Your task to perform on an android device: Open Maps and search for coffee Image 0: 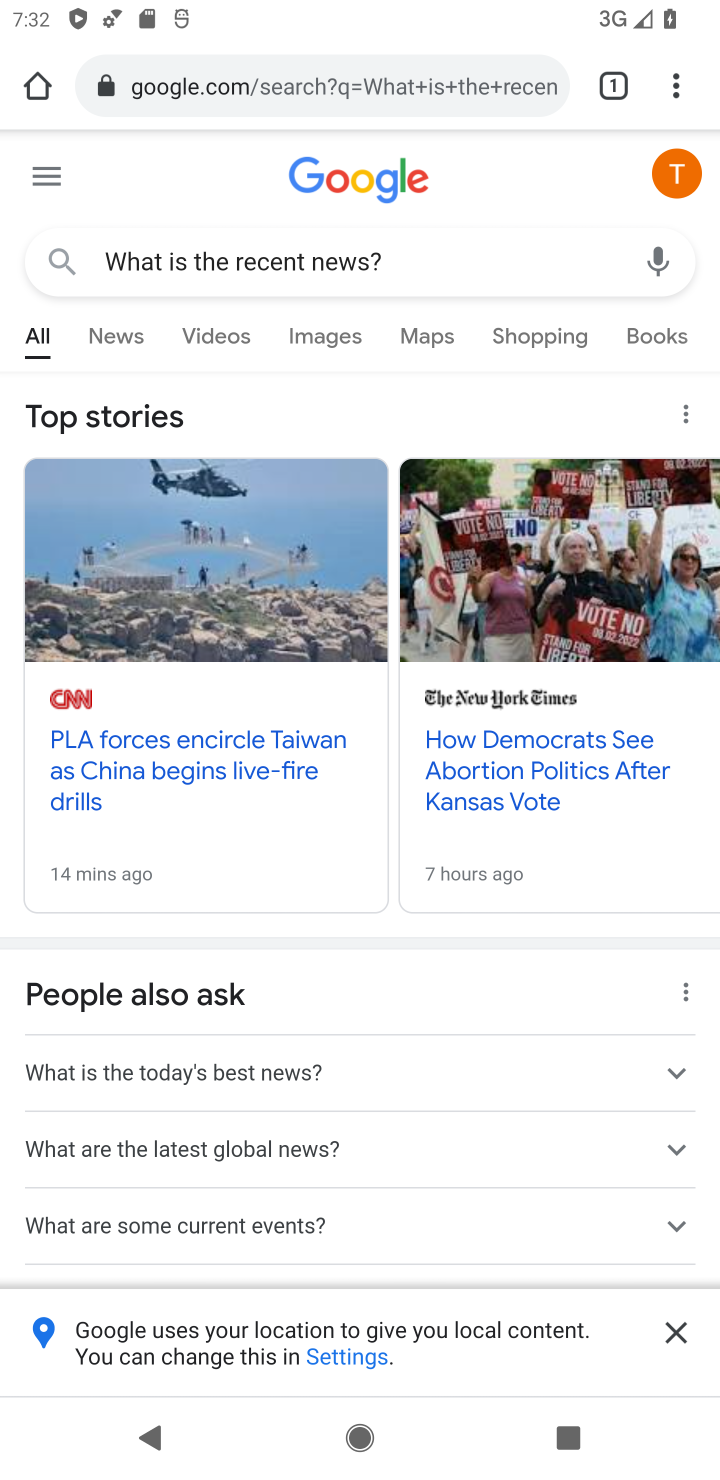
Step 0: press home button
Your task to perform on an android device: Open Maps and search for coffee Image 1: 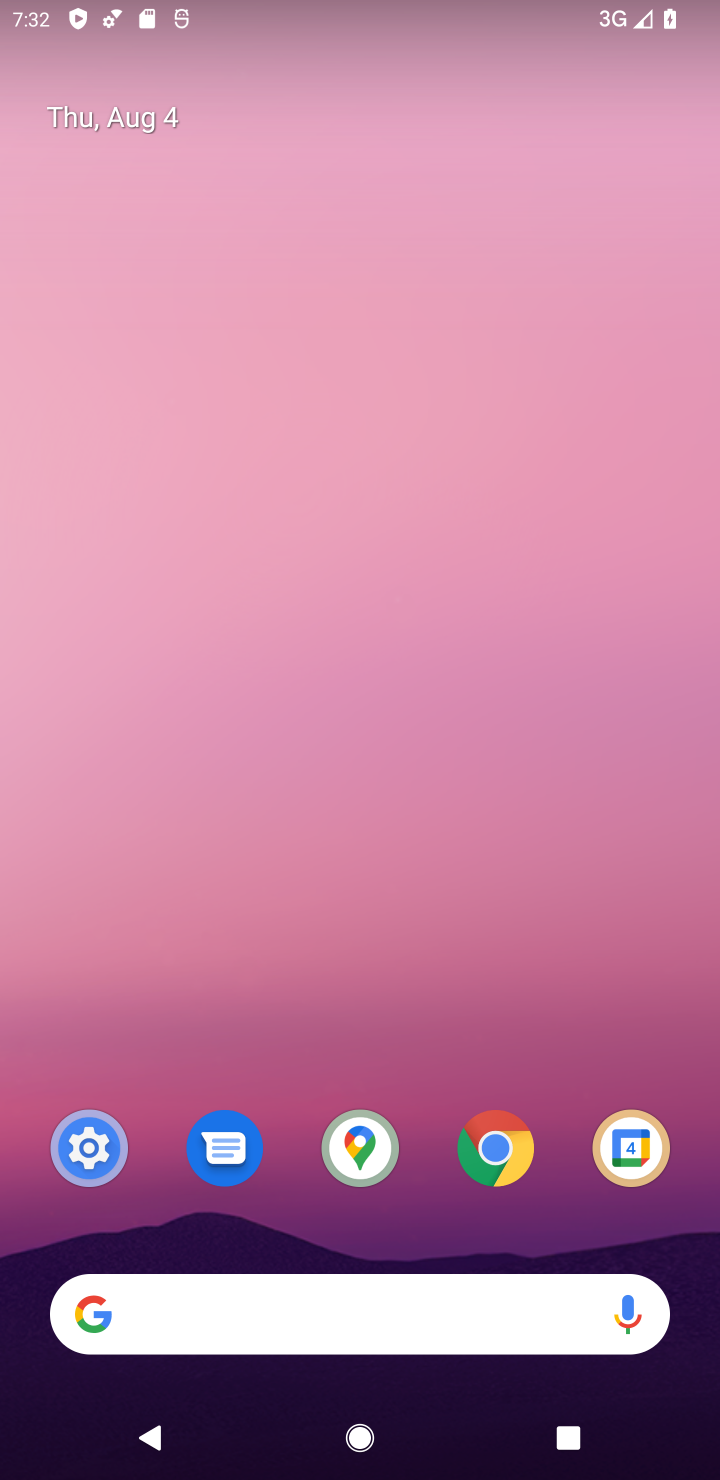
Step 1: click (345, 1173)
Your task to perform on an android device: Open Maps and search for coffee Image 2: 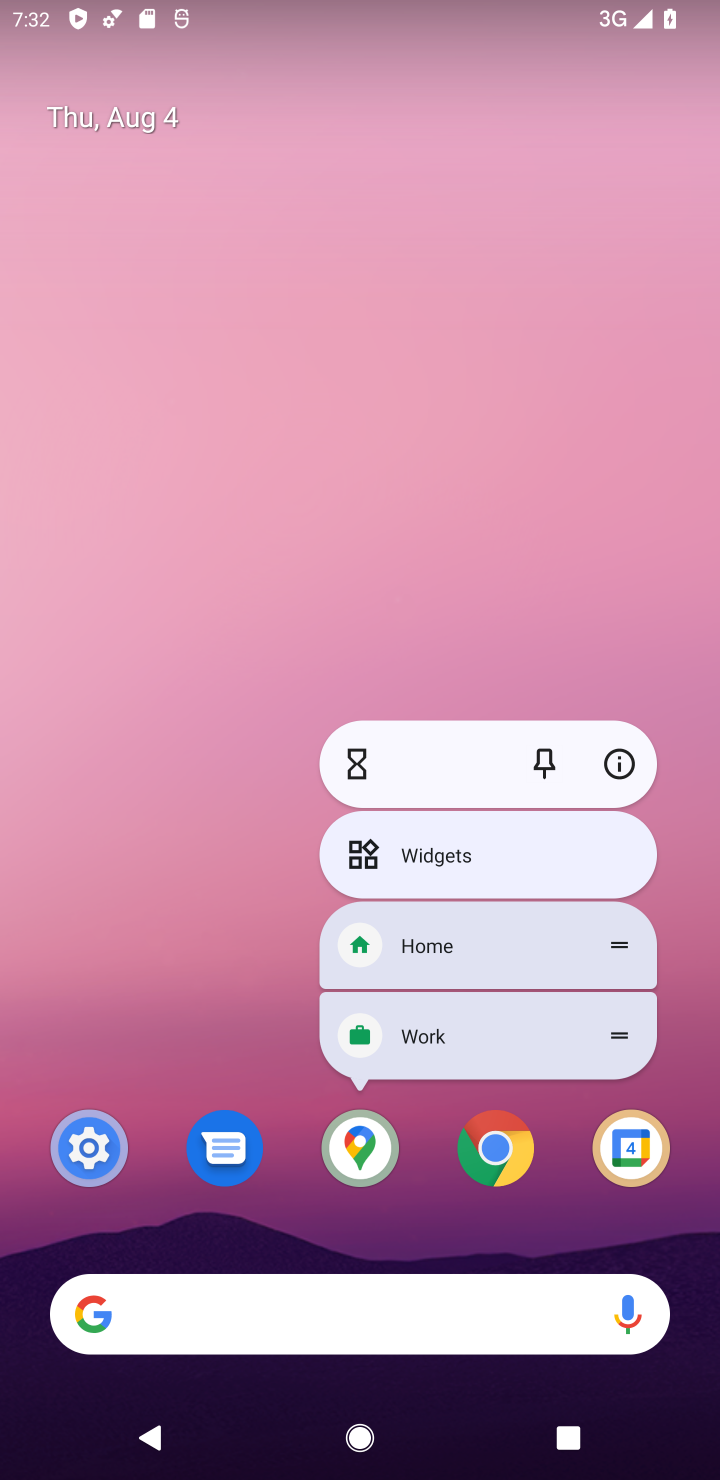
Step 2: click (364, 1165)
Your task to perform on an android device: Open Maps and search for coffee Image 3: 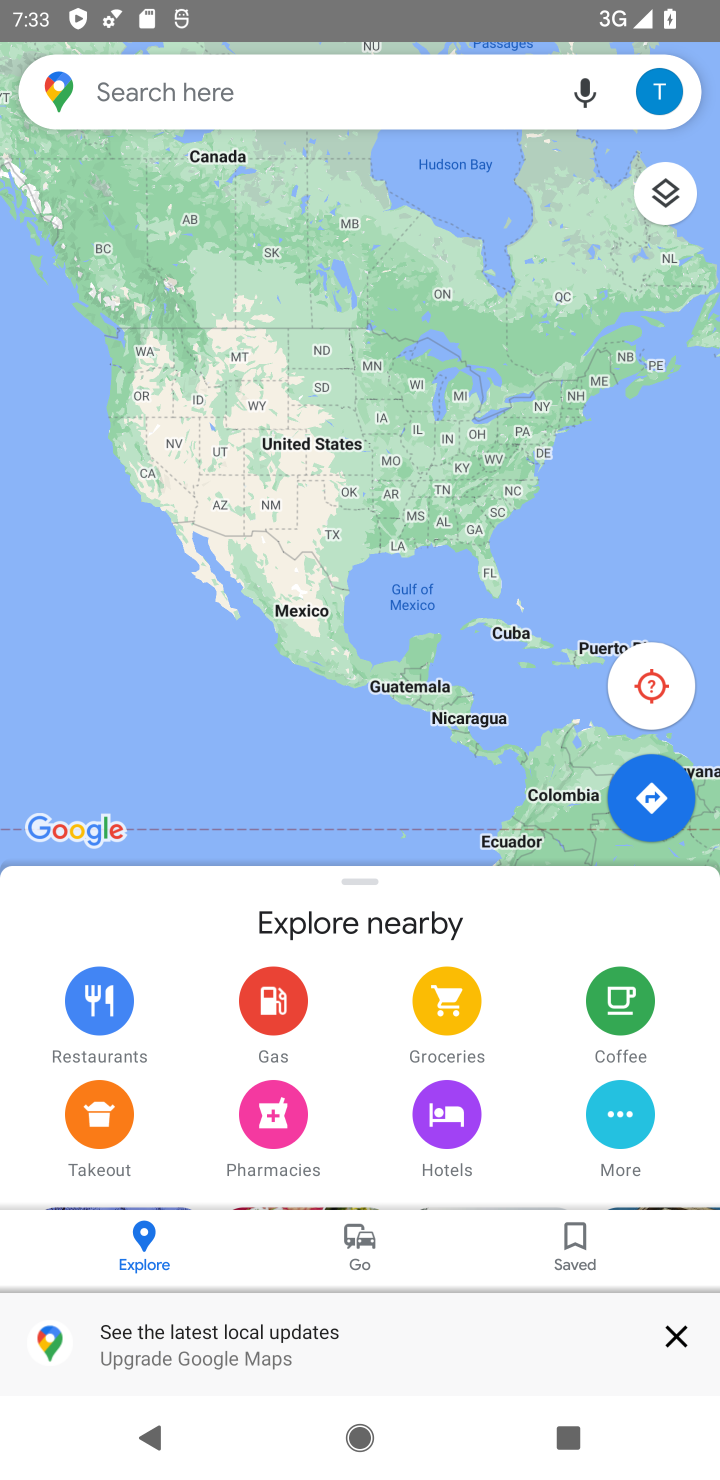
Step 3: click (195, 86)
Your task to perform on an android device: Open Maps and search for coffee Image 4: 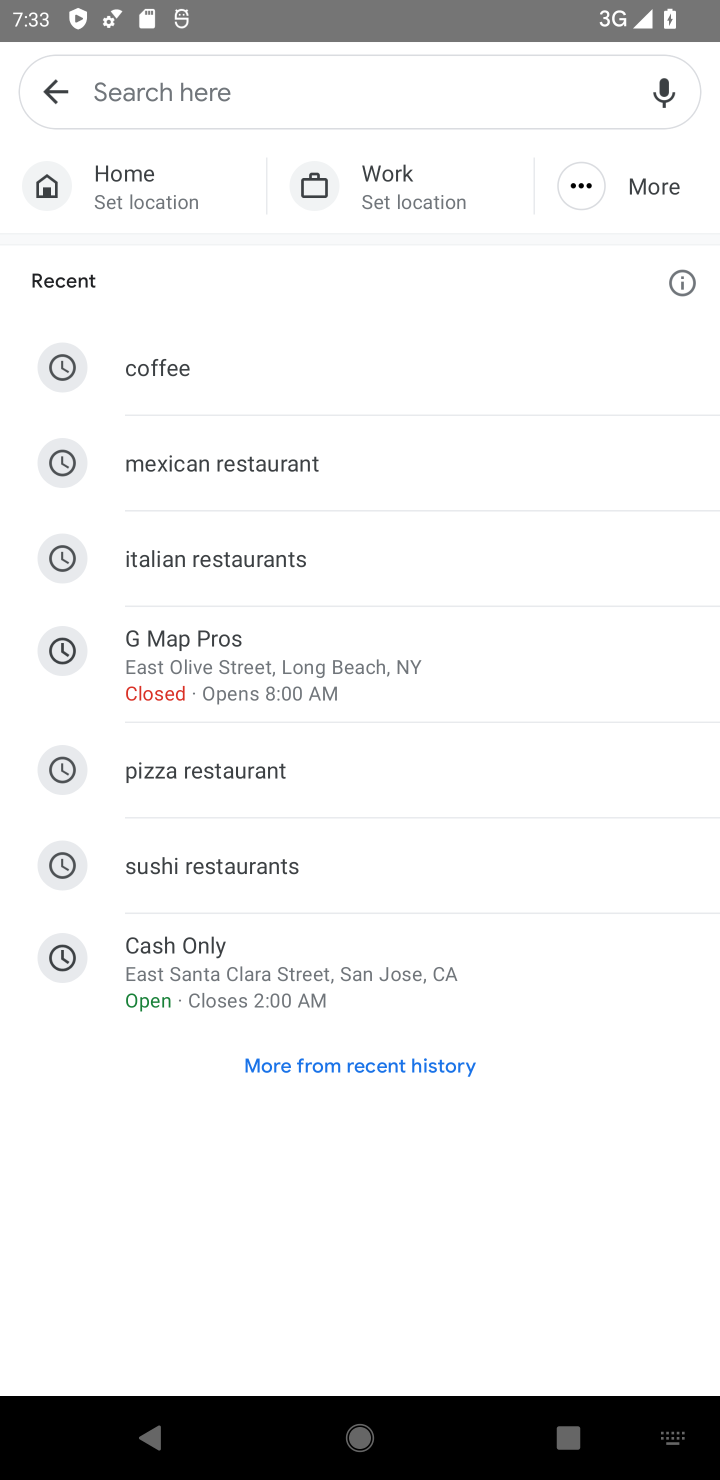
Step 4: click (224, 378)
Your task to perform on an android device: Open Maps and search for coffee Image 5: 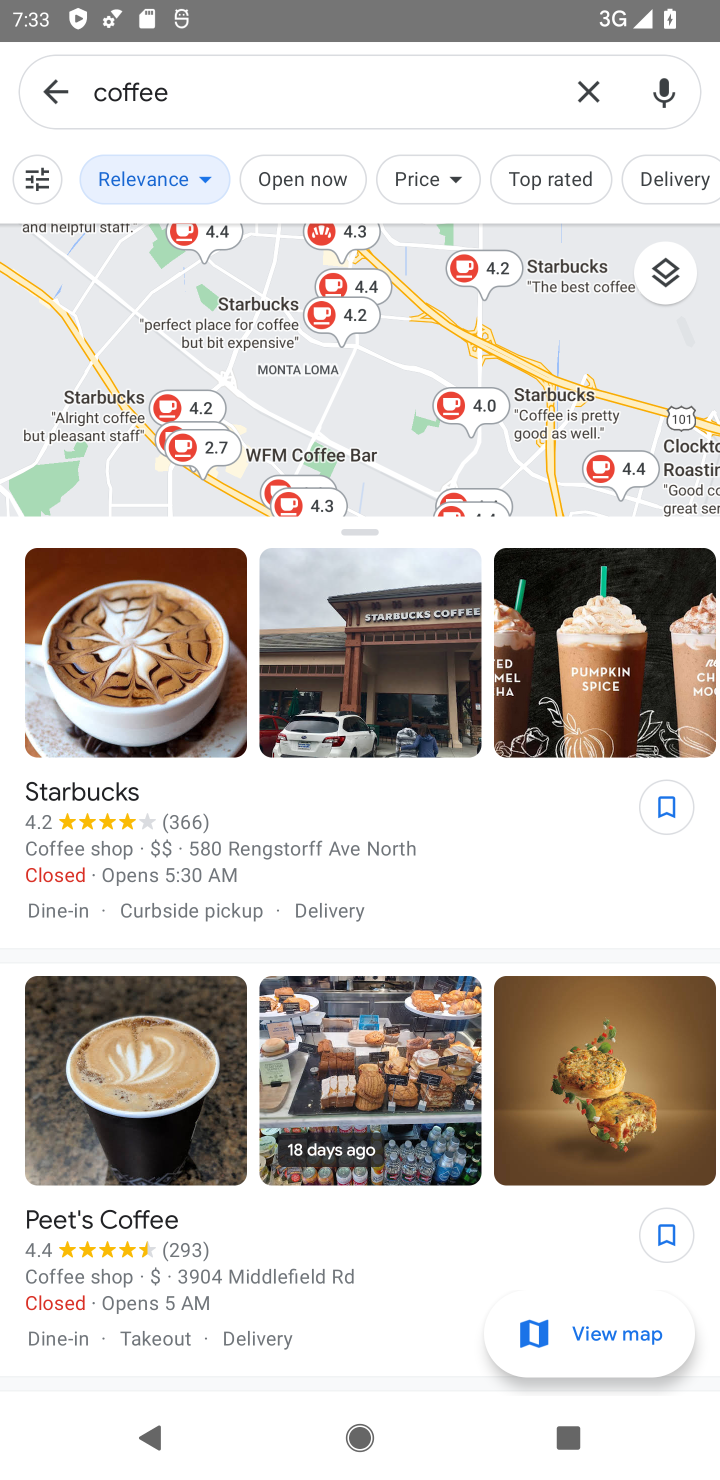
Step 5: task complete